Your task to perform on an android device: all mails in gmail Image 0: 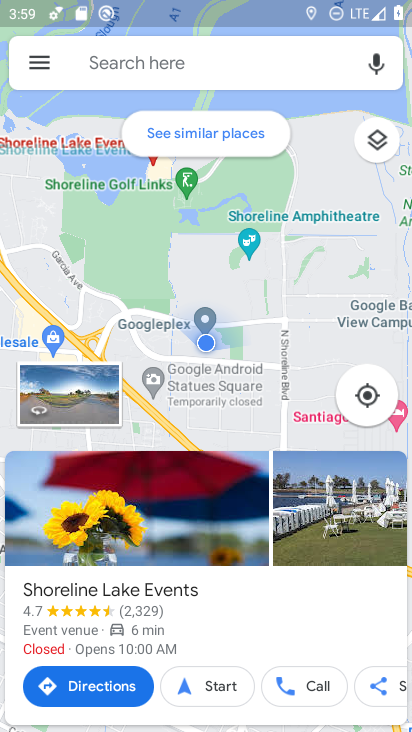
Step 0: drag from (223, 557) to (366, 8)
Your task to perform on an android device: all mails in gmail Image 1: 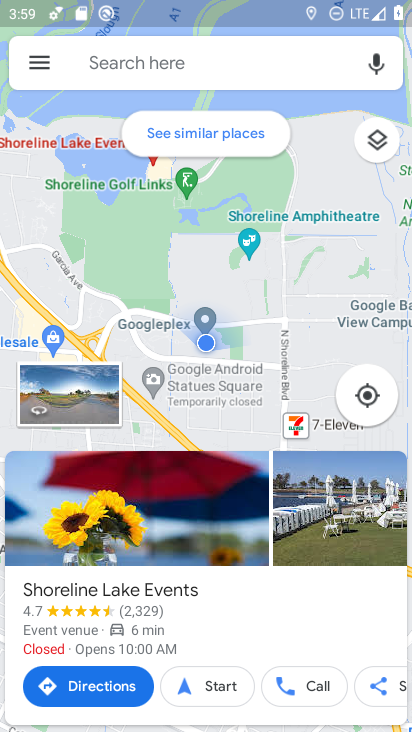
Step 1: press home button
Your task to perform on an android device: all mails in gmail Image 2: 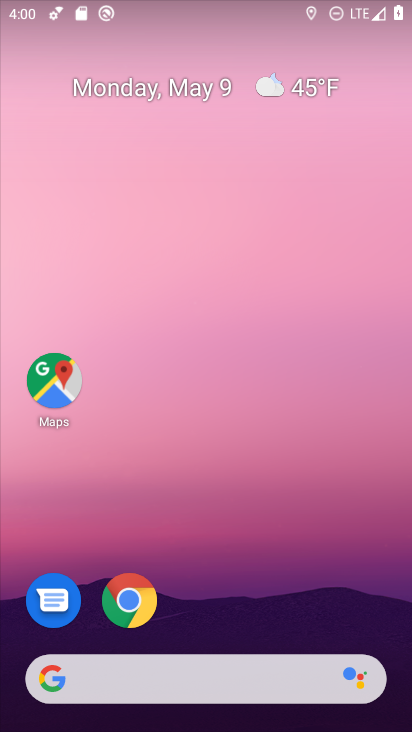
Step 2: drag from (184, 598) to (295, 135)
Your task to perform on an android device: all mails in gmail Image 3: 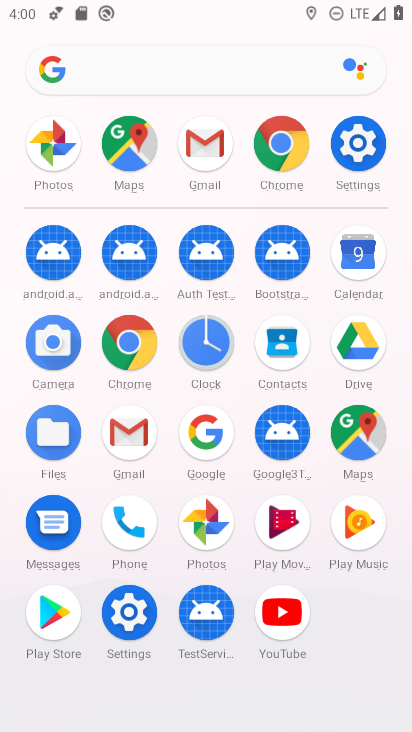
Step 3: click (116, 439)
Your task to perform on an android device: all mails in gmail Image 4: 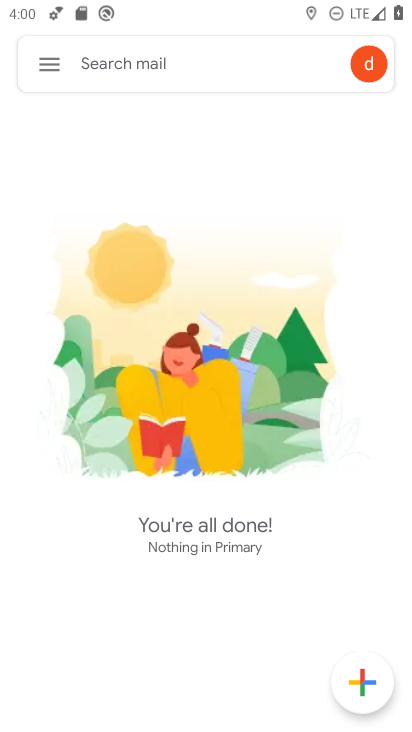
Step 4: click (38, 67)
Your task to perform on an android device: all mails in gmail Image 5: 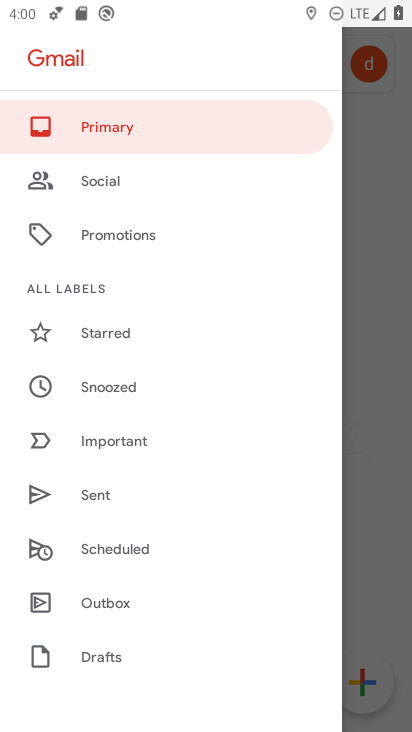
Step 5: drag from (116, 602) to (166, 329)
Your task to perform on an android device: all mails in gmail Image 6: 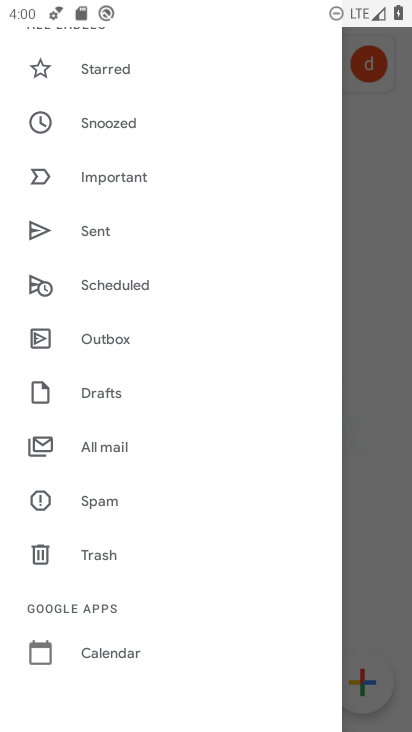
Step 6: click (112, 456)
Your task to perform on an android device: all mails in gmail Image 7: 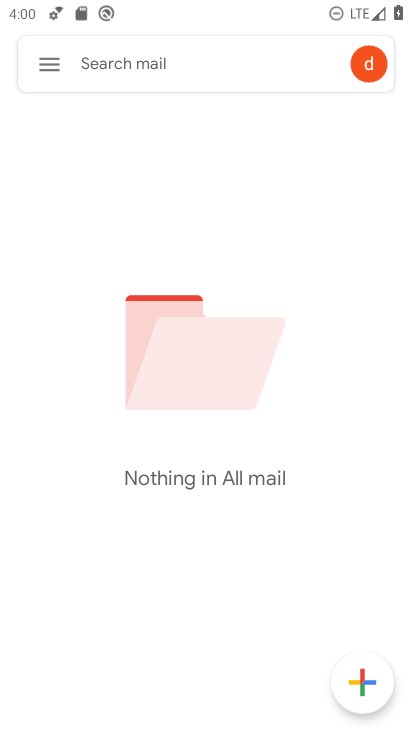
Step 7: task complete